Your task to perform on an android device: move a message to another label in the gmail app Image 0: 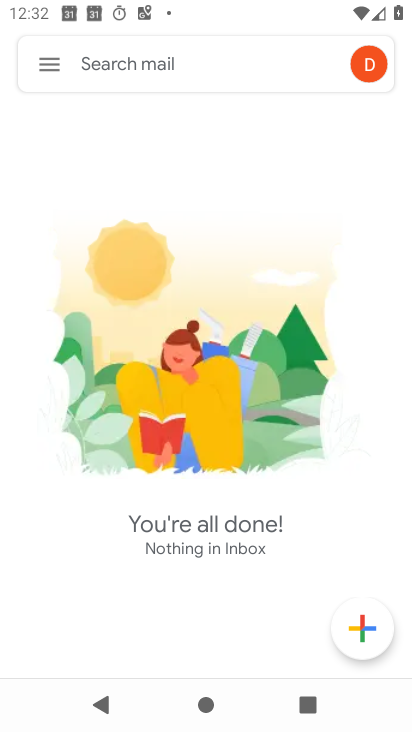
Step 0: press home button
Your task to perform on an android device: move a message to another label in the gmail app Image 1: 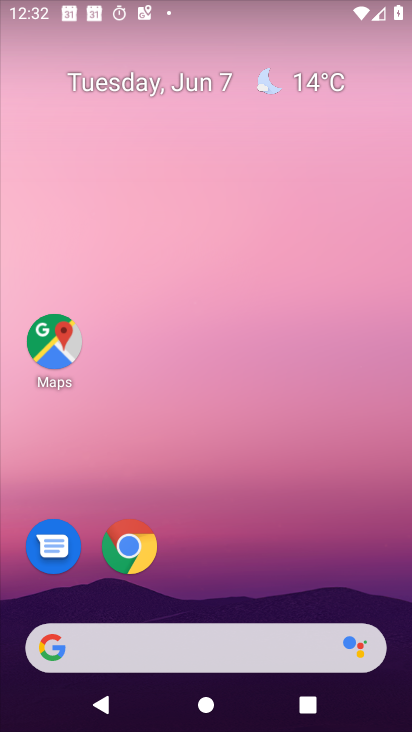
Step 1: drag from (225, 602) to (284, 386)
Your task to perform on an android device: move a message to another label in the gmail app Image 2: 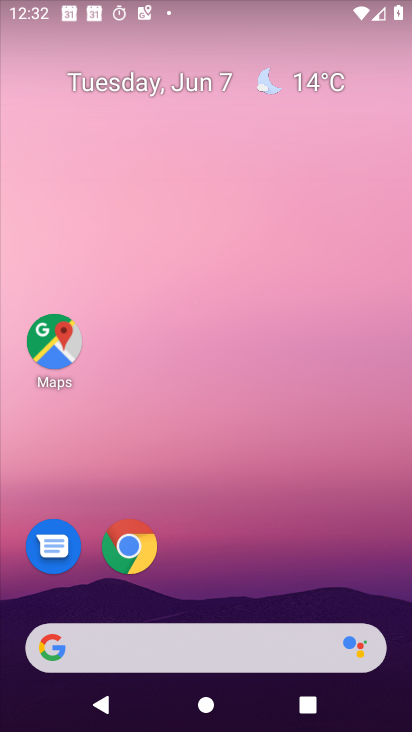
Step 2: drag from (227, 622) to (253, 293)
Your task to perform on an android device: move a message to another label in the gmail app Image 3: 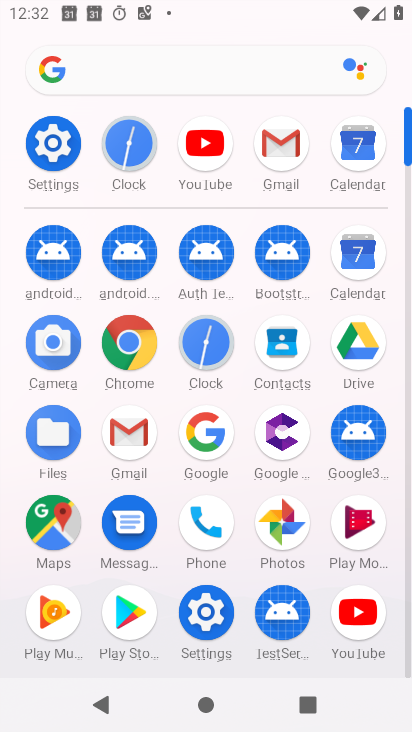
Step 3: click (126, 449)
Your task to perform on an android device: move a message to another label in the gmail app Image 4: 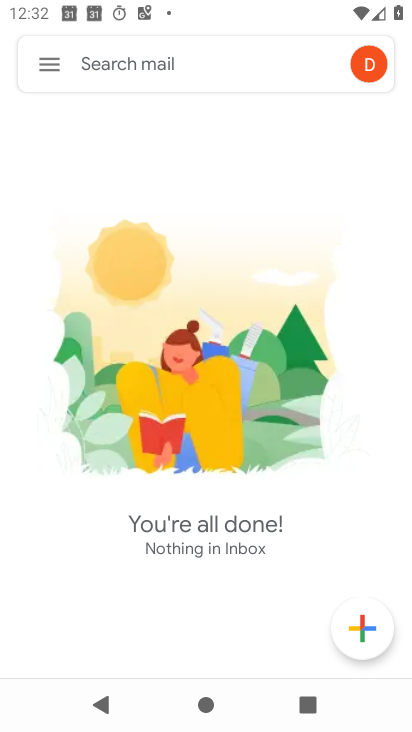
Step 4: click (53, 60)
Your task to perform on an android device: move a message to another label in the gmail app Image 5: 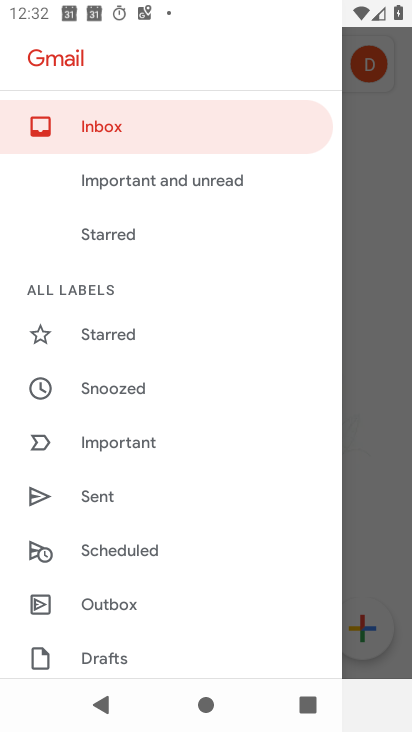
Step 5: drag from (131, 521) to (194, 241)
Your task to perform on an android device: move a message to another label in the gmail app Image 6: 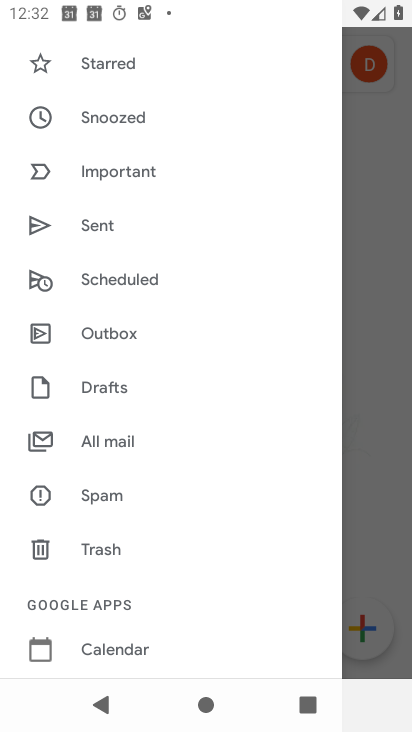
Step 6: click (88, 447)
Your task to perform on an android device: move a message to another label in the gmail app Image 7: 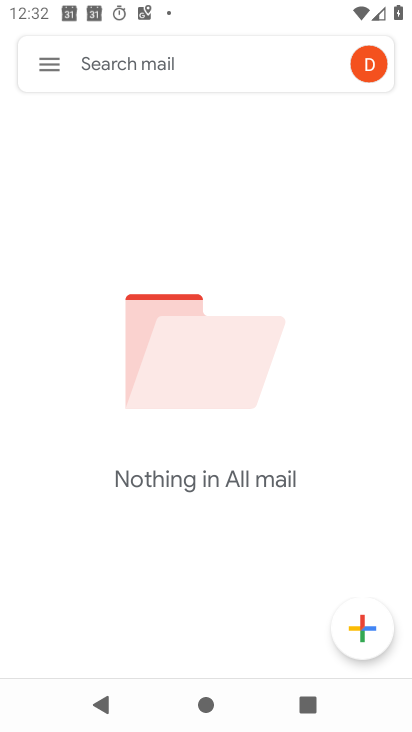
Step 7: task complete